Your task to perform on an android device: read, delete, or share a saved page in the chrome app Image 0: 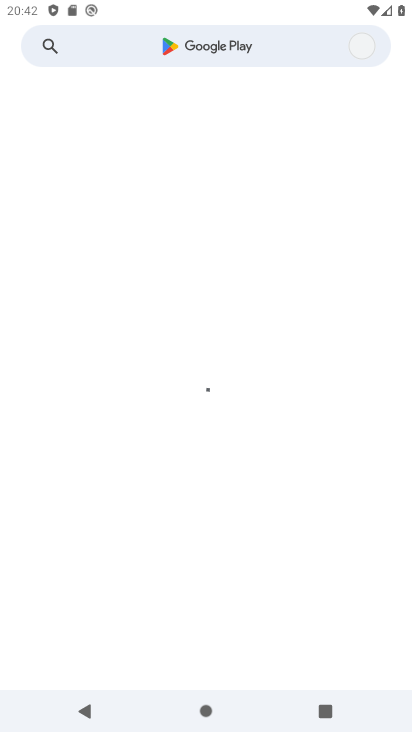
Step 0: press home button
Your task to perform on an android device: read, delete, or share a saved page in the chrome app Image 1: 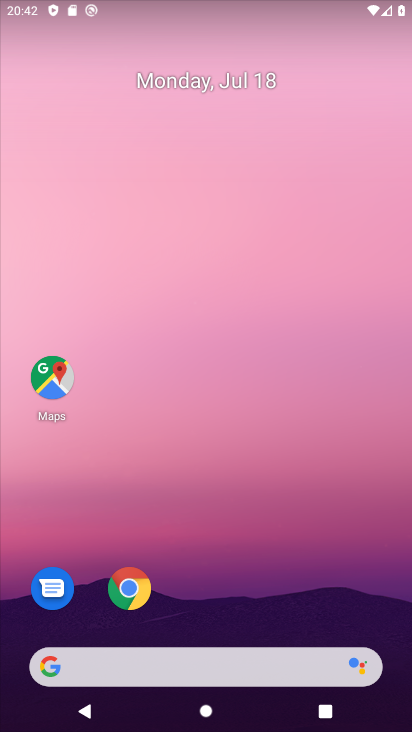
Step 1: click (129, 590)
Your task to perform on an android device: read, delete, or share a saved page in the chrome app Image 2: 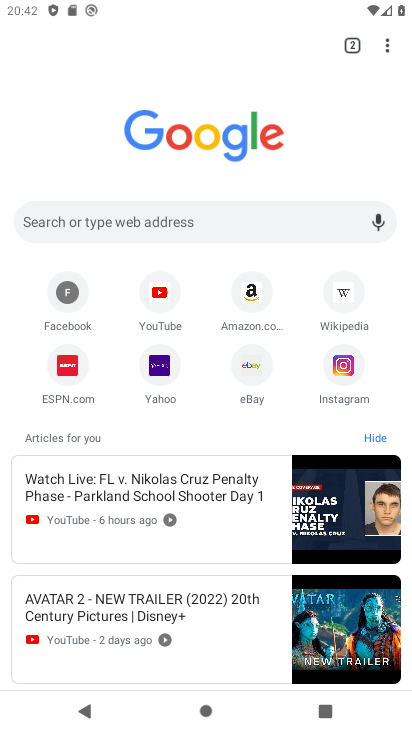
Step 2: drag from (388, 46) to (272, 299)
Your task to perform on an android device: read, delete, or share a saved page in the chrome app Image 3: 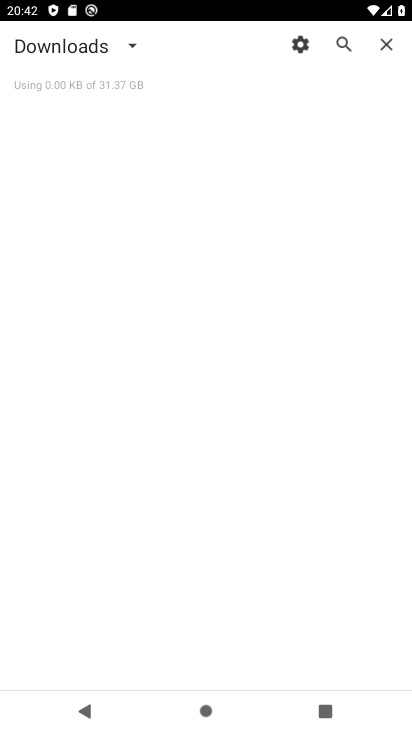
Step 3: click (99, 43)
Your task to perform on an android device: read, delete, or share a saved page in the chrome app Image 4: 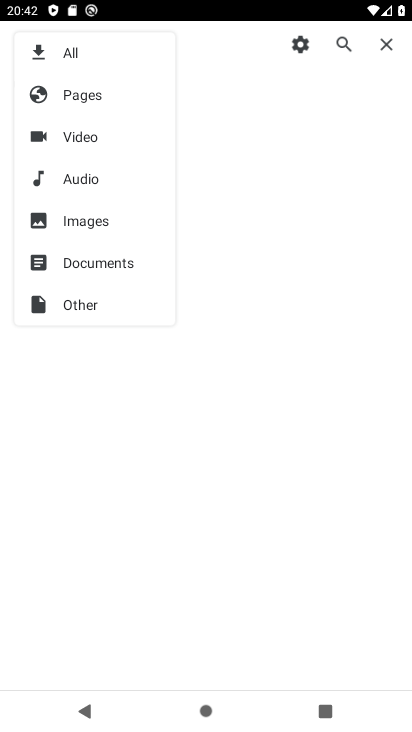
Step 4: click (81, 94)
Your task to perform on an android device: read, delete, or share a saved page in the chrome app Image 5: 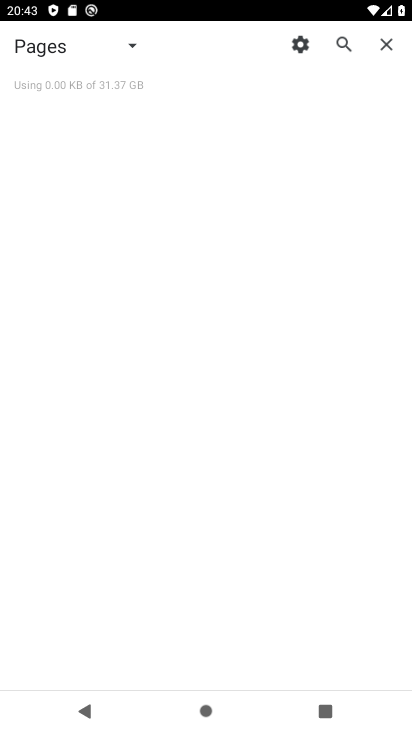
Step 5: task complete